Your task to perform on an android device: toggle sleep mode Image 0: 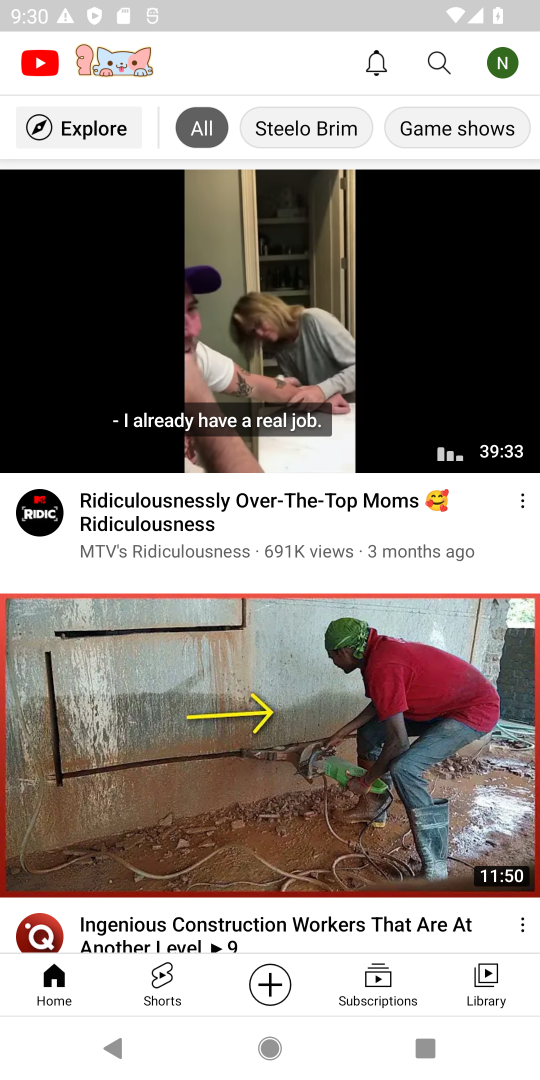
Step 0: press home button
Your task to perform on an android device: toggle sleep mode Image 1: 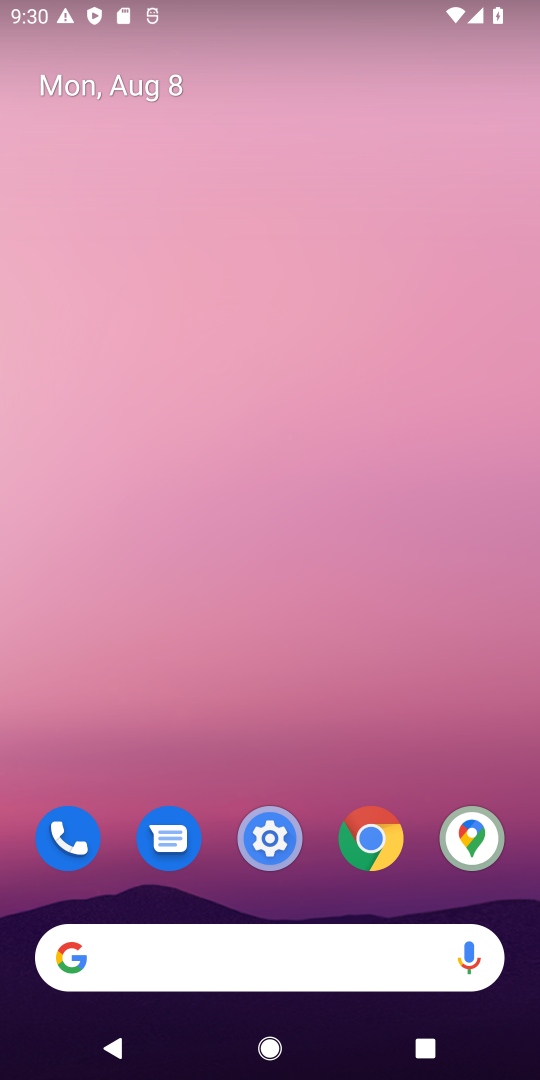
Step 1: click (281, 837)
Your task to perform on an android device: toggle sleep mode Image 2: 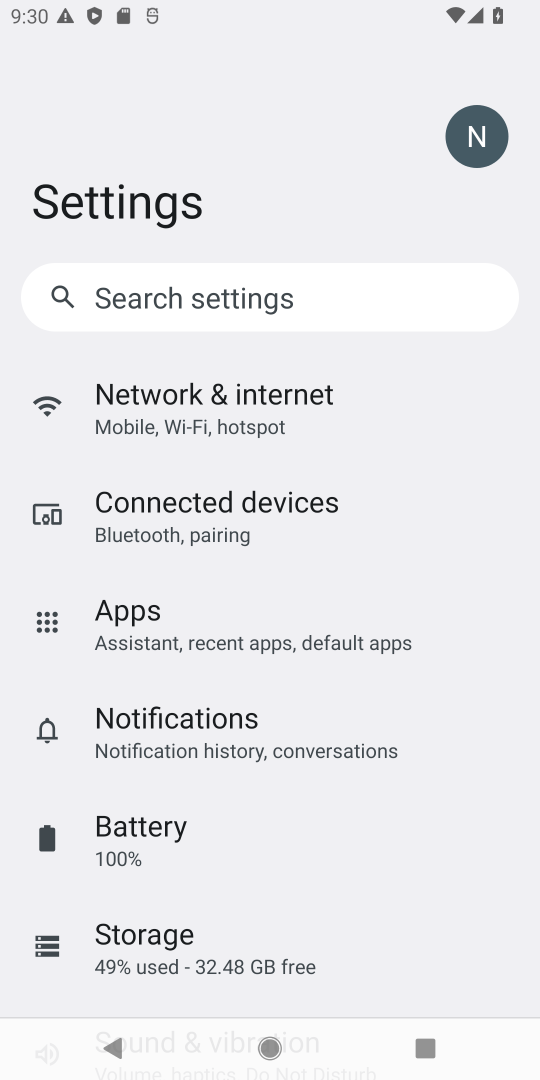
Step 2: drag from (333, 799) to (430, 285)
Your task to perform on an android device: toggle sleep mode Image 3: 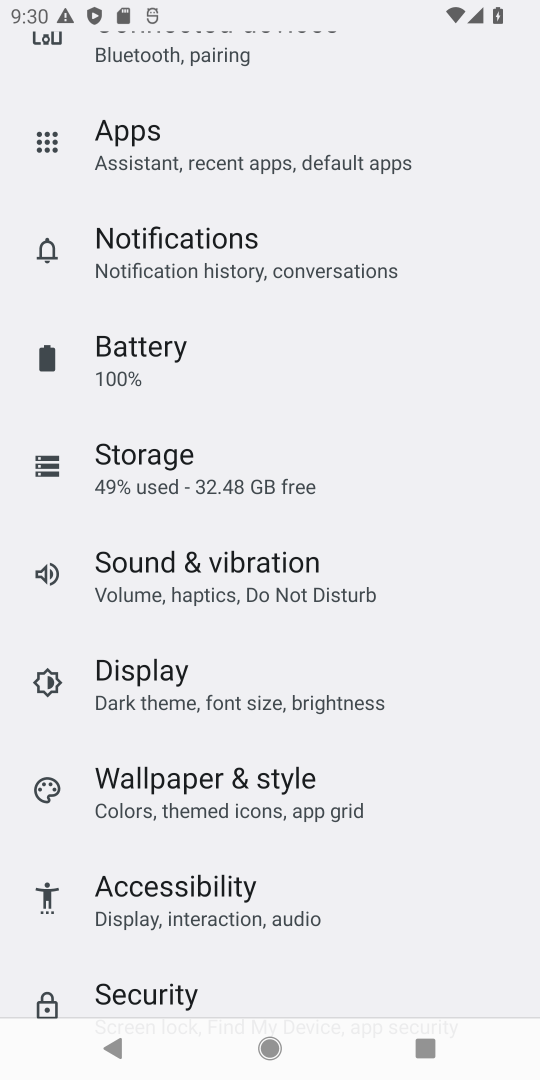
Step 3: click (124, 678)
Your task to perform on an android device: toggle sleep mode Image 4: 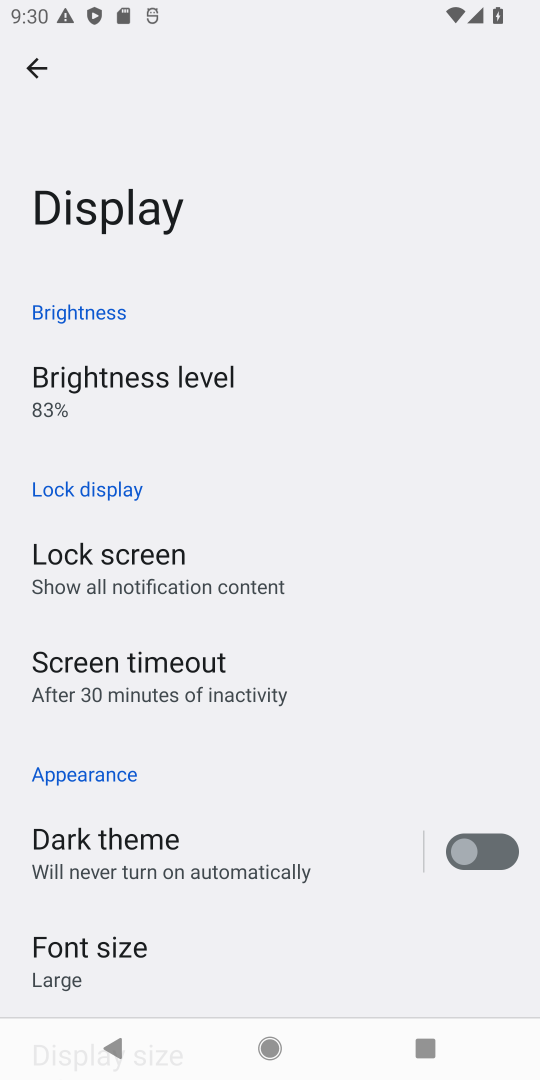
Step 4: task complete